Your task to perform on an android device: Open Chrome and go to the settings page Image 0: 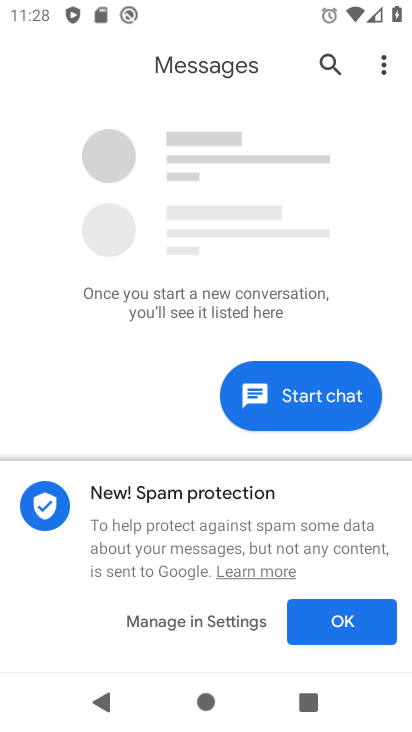
Step 0: press home button
Your task to perform on an android device: Open Chrome and go to the settings page Image 1: 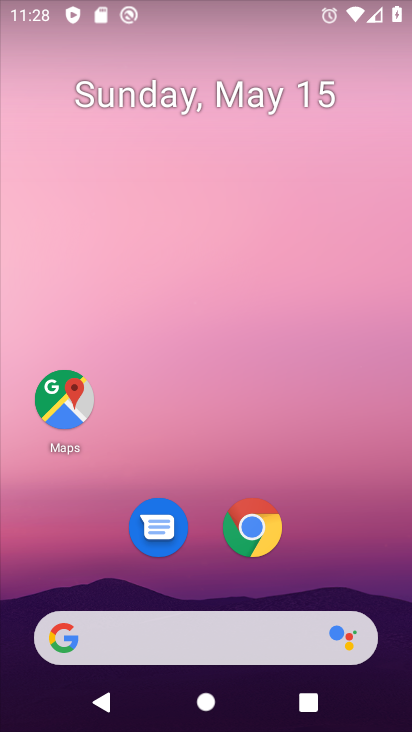
Step 1: click (263, 535)
Your task to perform on an android device: Open Chrome and go to the settings page Image 2: 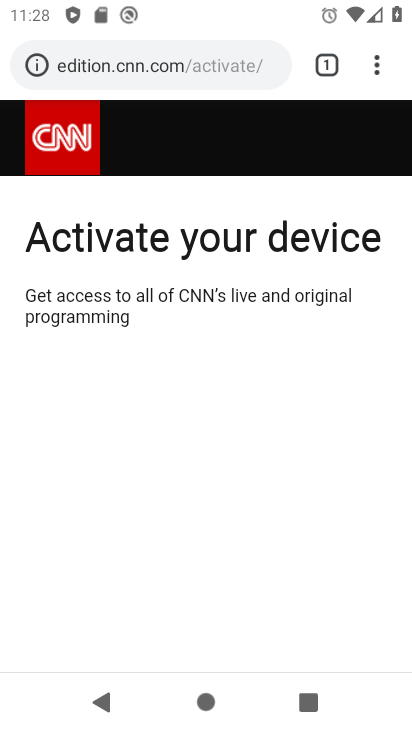
Step 2: click (372, 70)
Your task to perform on an android device: Open Chrome and go to the settings page Image 3: 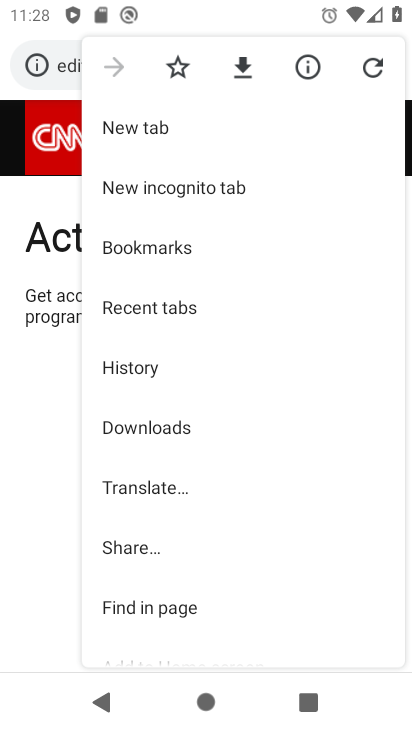
Step 3: drag from (193, 607) to (195, 280)
Your task to perform on an android device: Open Chrome and go to the settings page Image 4: 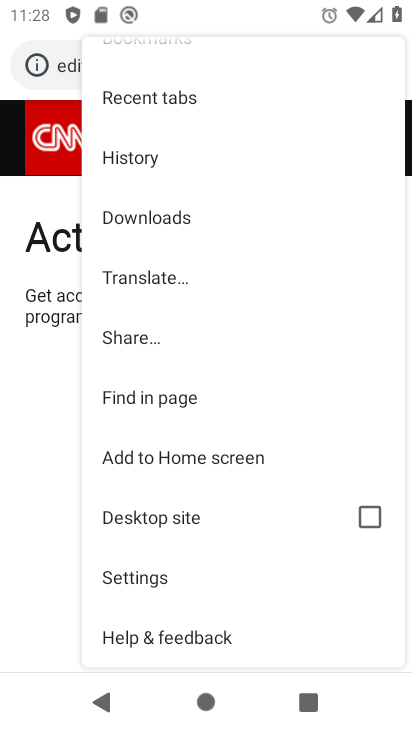
Step 4: click (195, 578)
Your task to perform on an android device: Open Chrome and go to the settings page Image 5: 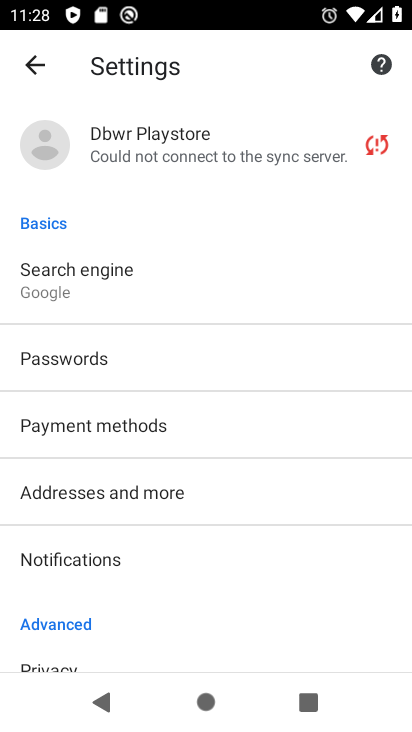
Step 5: task complete